Your task to perform on an android device: change timer sound Image 0: 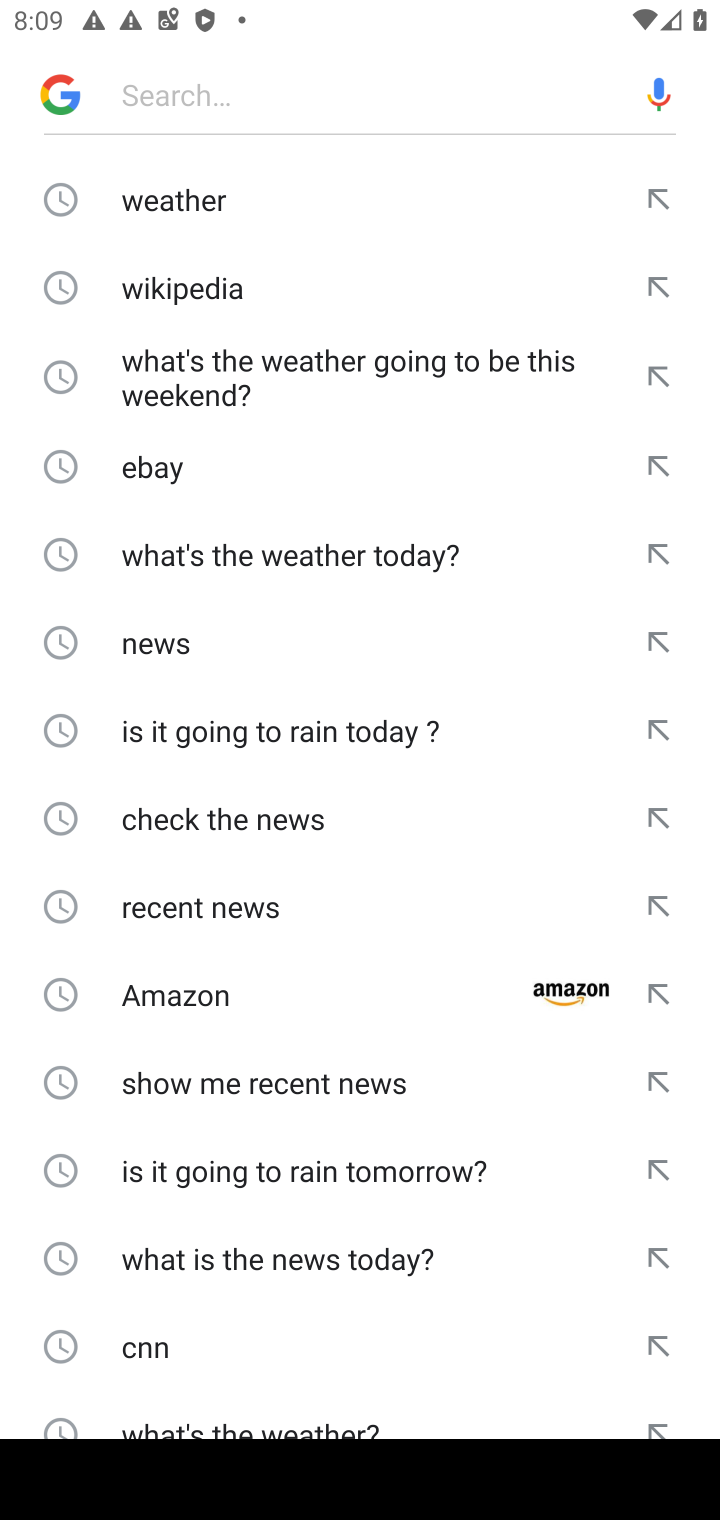
Step 0: press back button
Your task to perform on an android device: change timer sound Image 1: 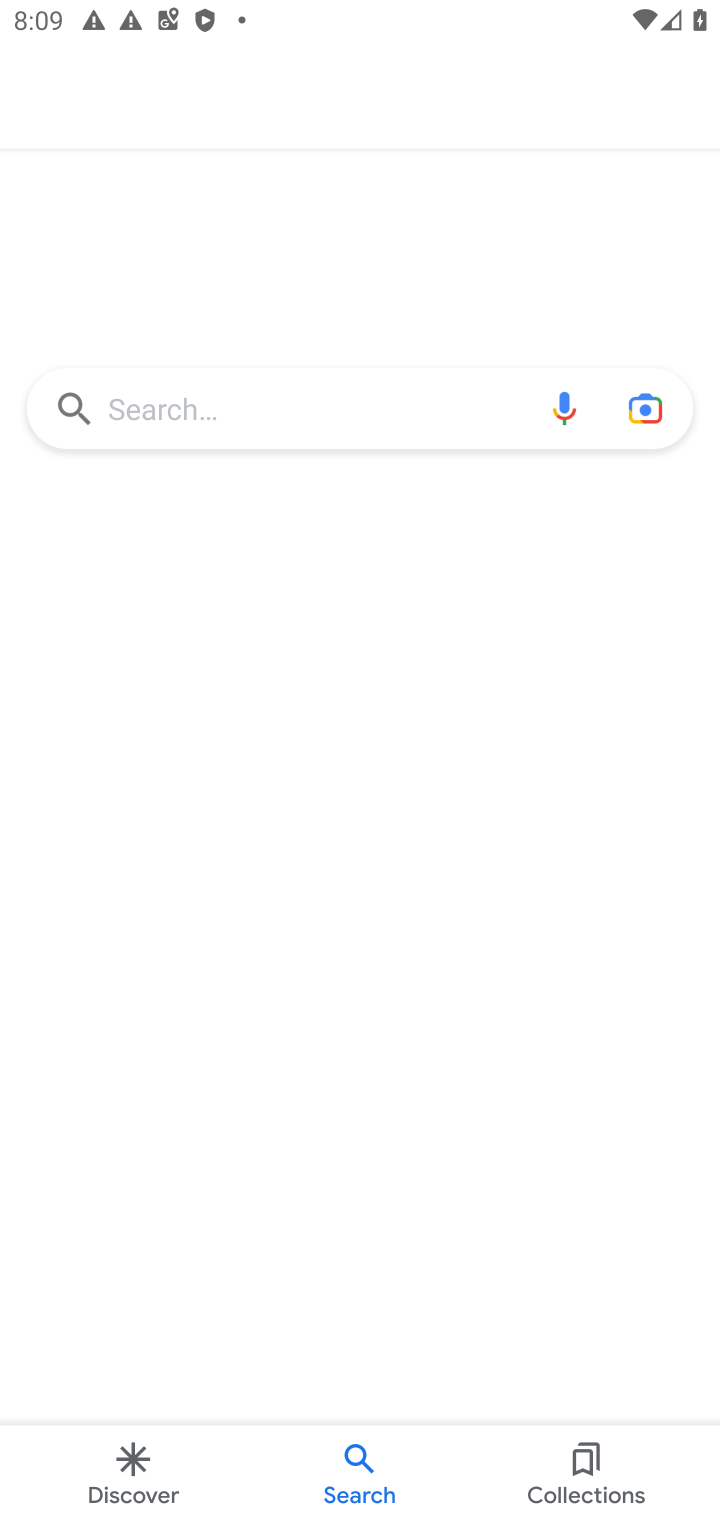
Step 1: press back button
Your task to perform on an android device: change timer sound Image 2: 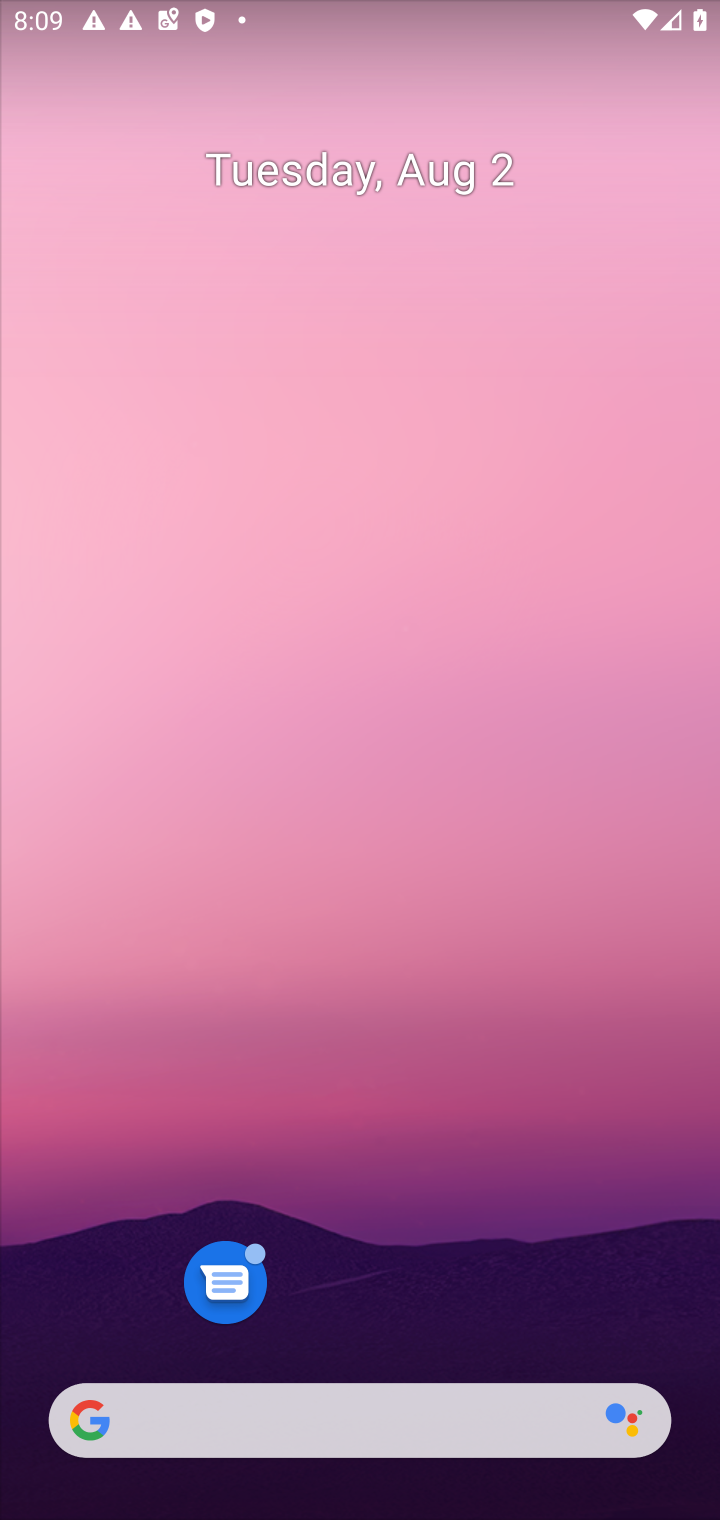
Step 2: drag from (371, 1329) to (717, 734)
Your task to perform on an android device: change timer sound Image 3: 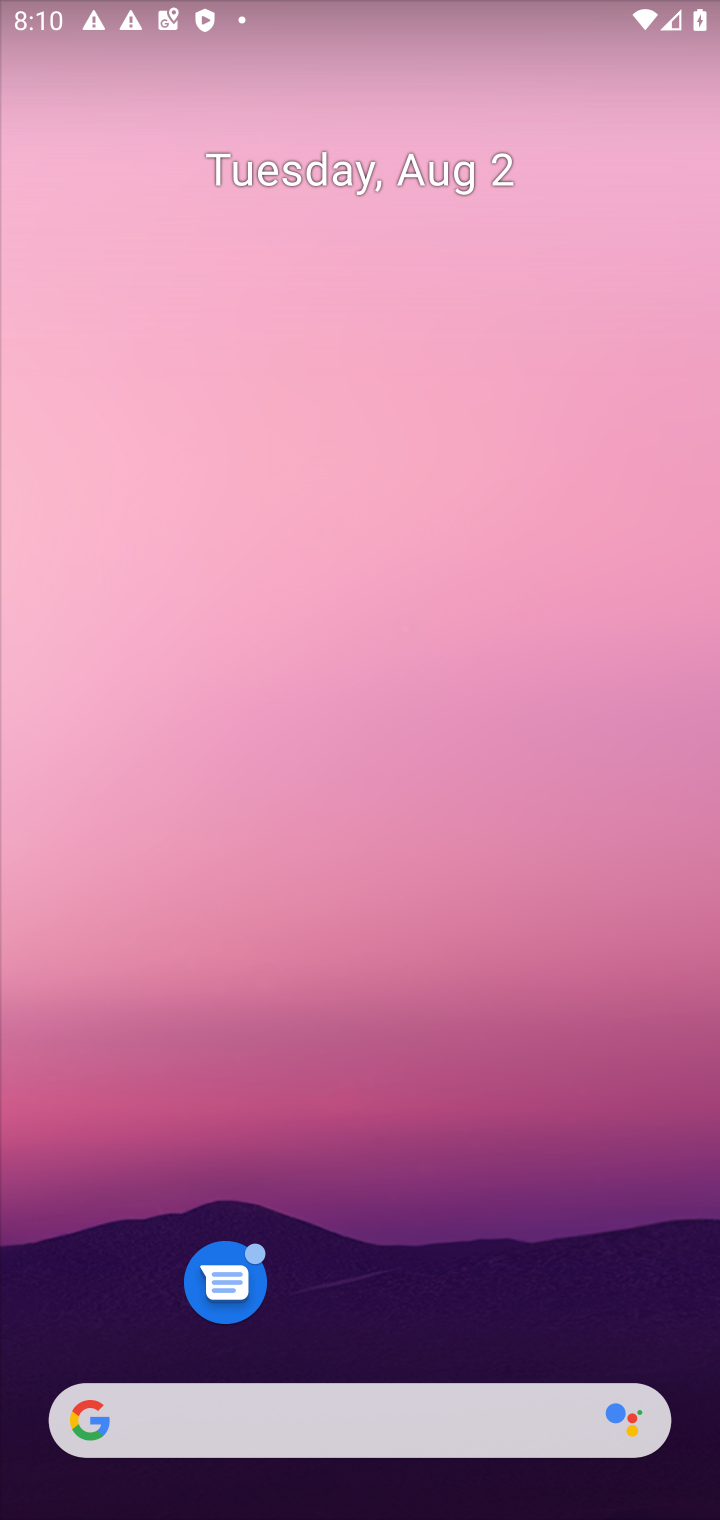
Step 3: drag from (436, 1340) to (351, 170)
Your task to perform on an android device: change timer sound Image 4: 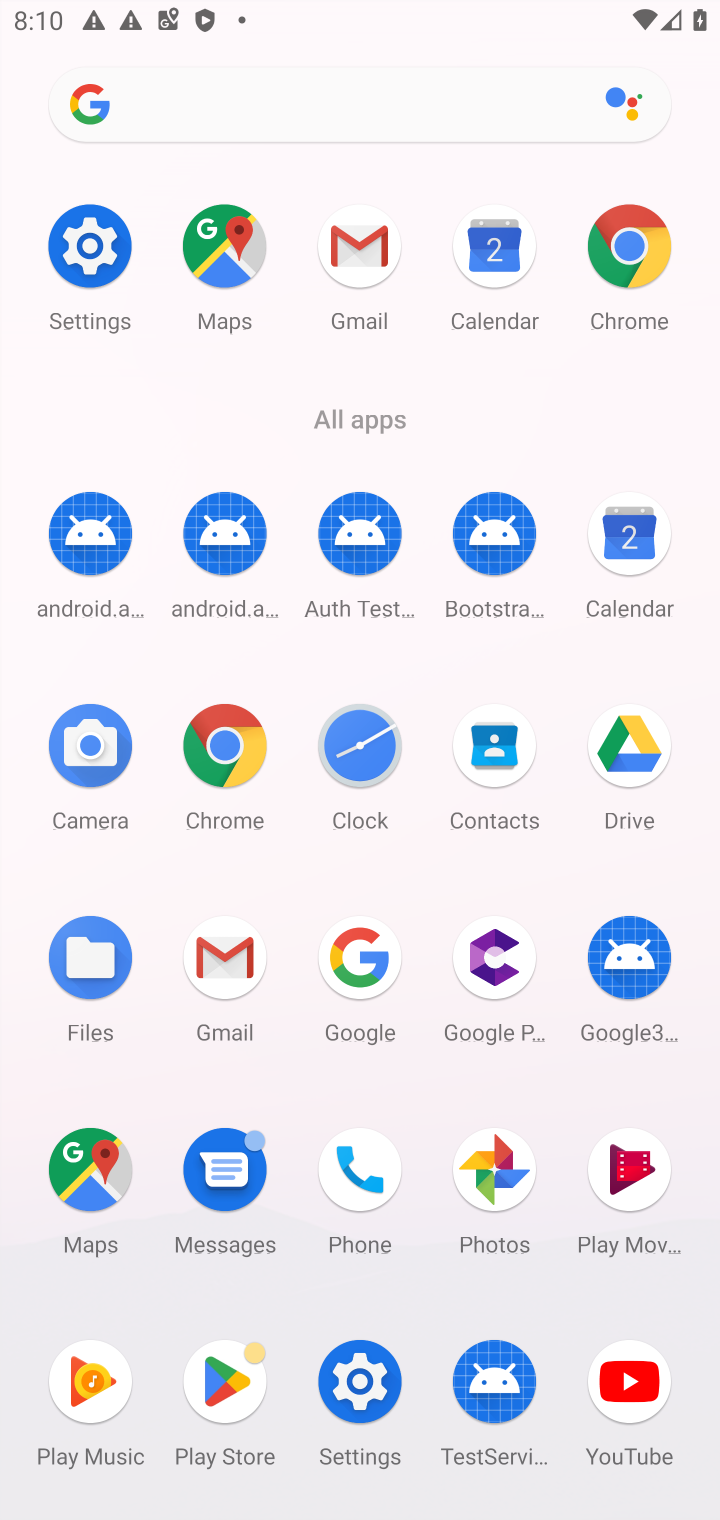
Step 4: click (376, 737)
Your task to perform on an android device: change timer sound Image 5: 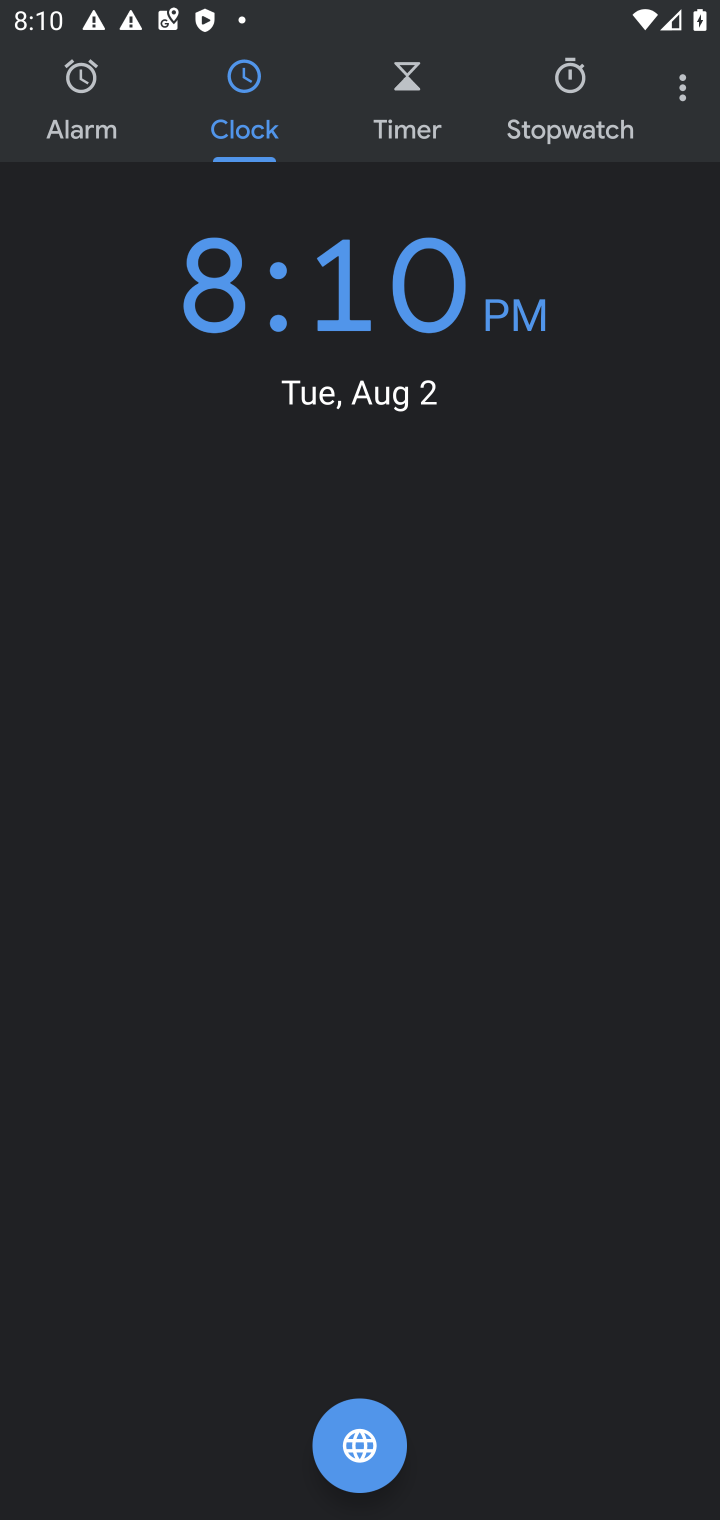
Step 5: click (682, 105)
Your task to perform on an android device: change timer sound Image 6: 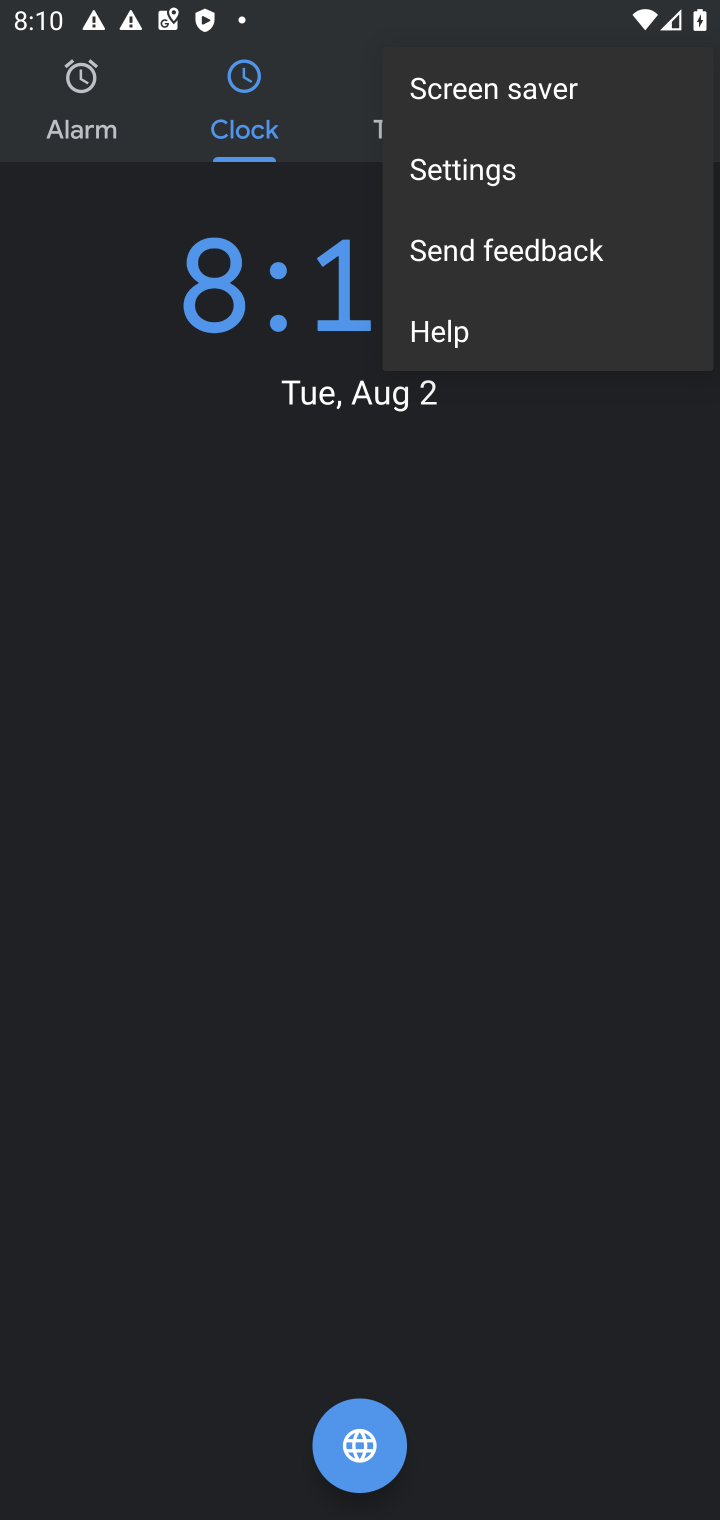
Step 6: click (443, 181)
Your task to perform on an android device: change timer sound Image 7: 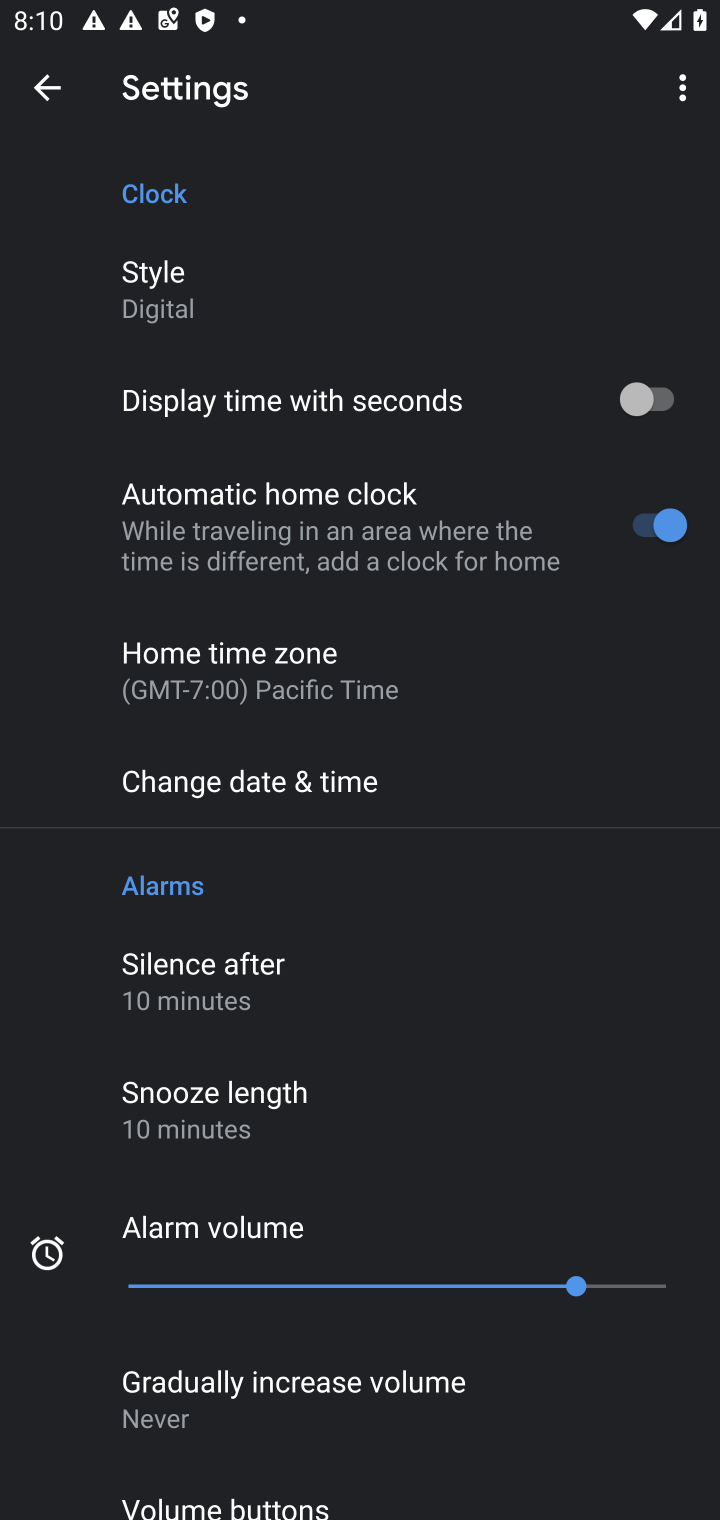
Step 7: drag from (506, 1190) to (567, 282)
Your task to perform on an android device: change timer sound Image 8: 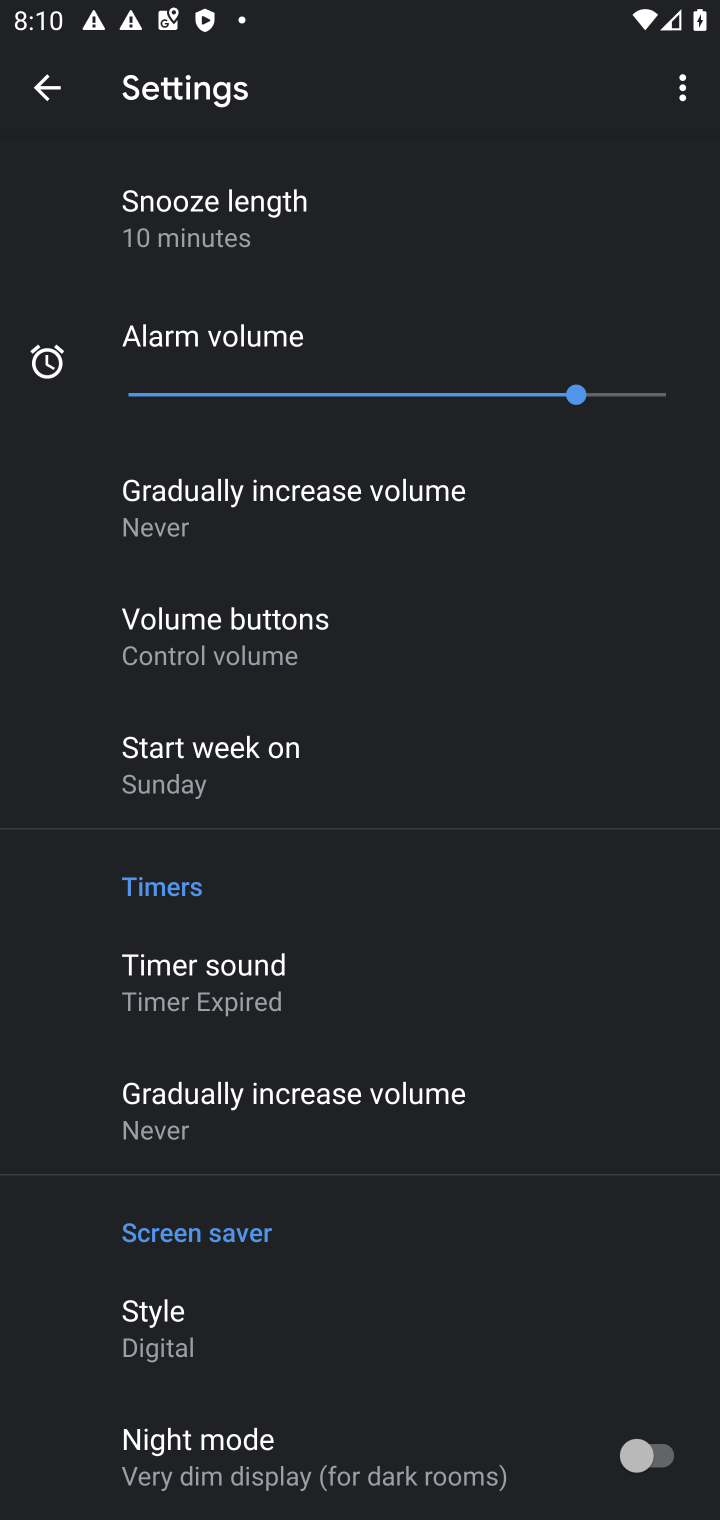
Step 8: click (247, 972)
Your task to perform on an android device: change timer sound Image 9: 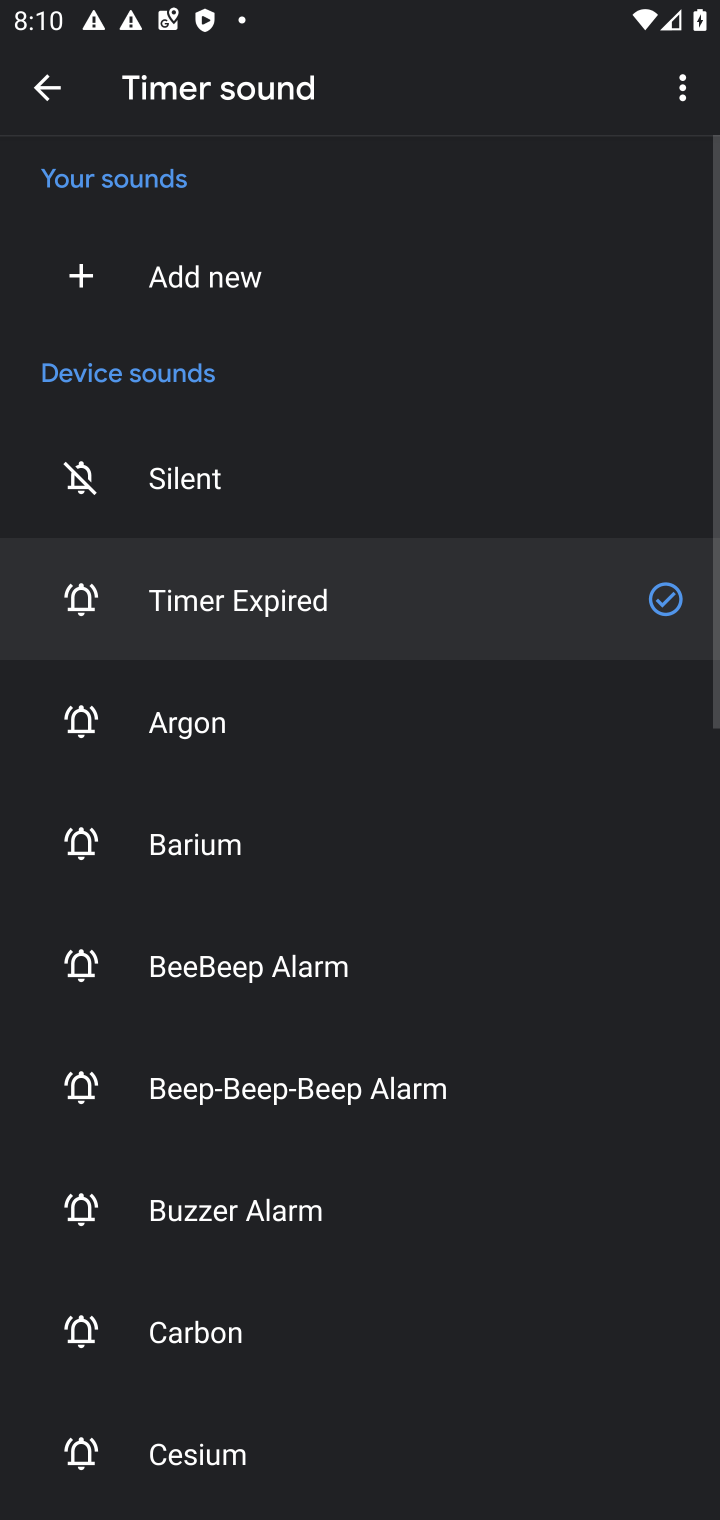
Step 9: click (197, 725)
Your task to perform on an android device: change timer sound Image 10: 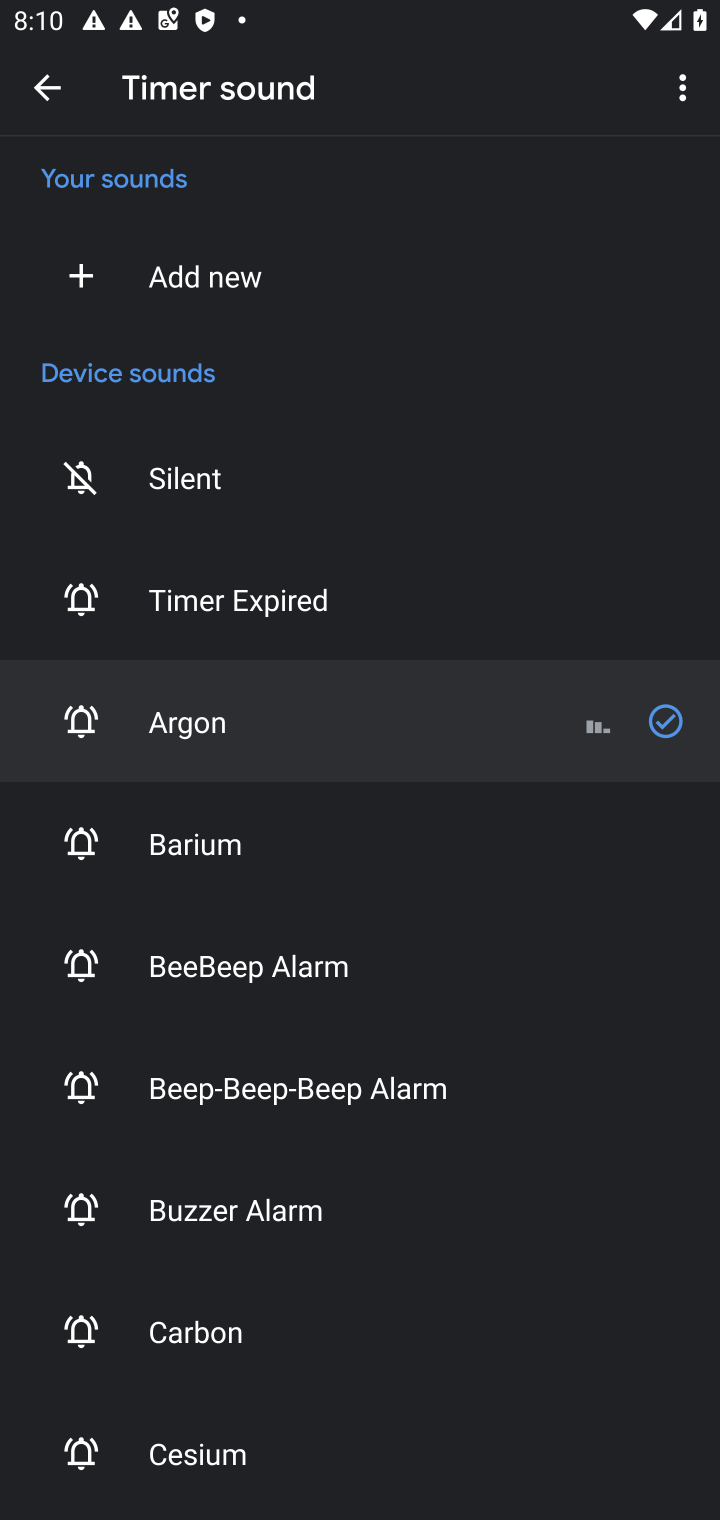
Step 10: task complete